Your task to perform on an android device: Open Google Chrome Image 0: 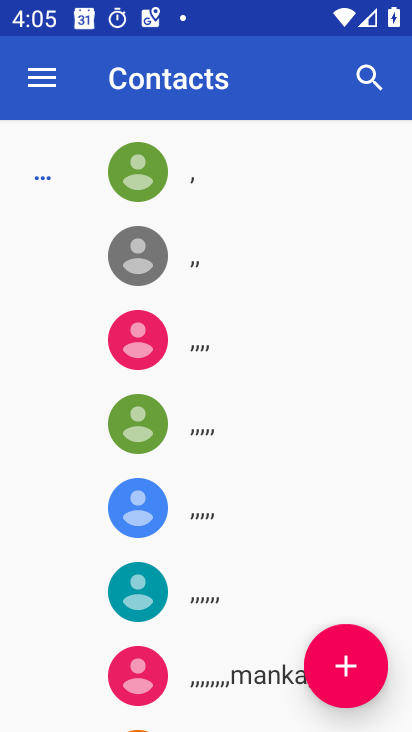
Step 0: press home button
Your task to perform on an android device: Open Google Chrome Image 1: 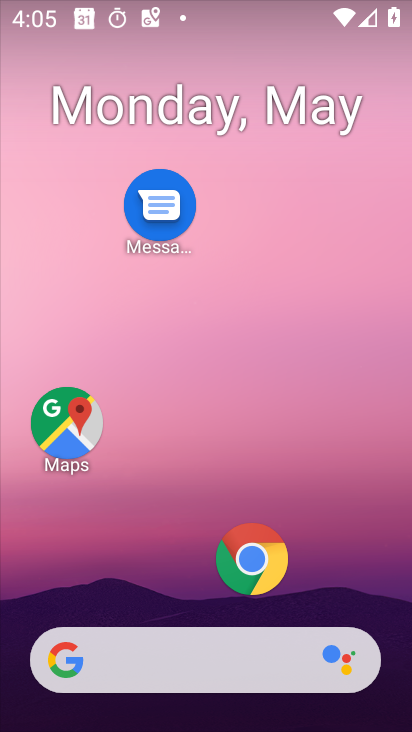
Step 1: click (253, 554)
Your task to perform on an android device: Open Google Chrome Image 2: 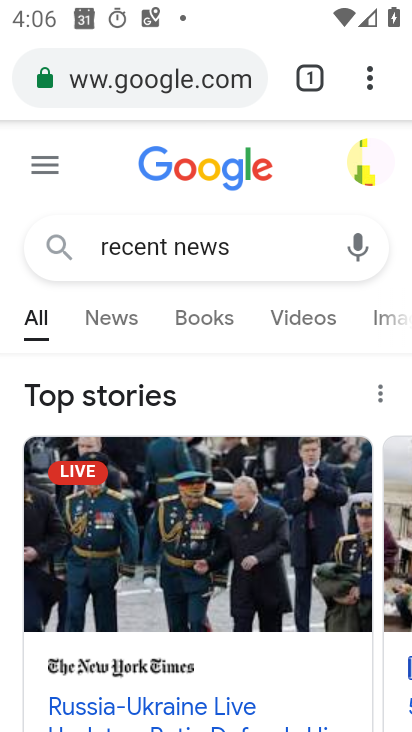
Step 2: press home button
Your task to perform on an android device: Open Google Chrome Image 3: 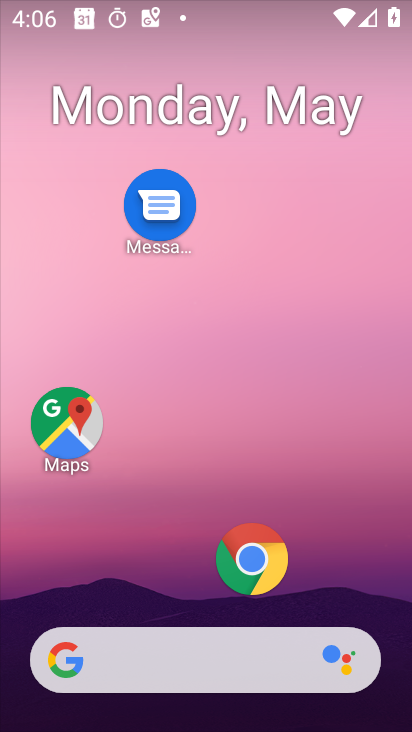
Step 3: click (253, 562)
Your task to perform on an android device: Open Google Chrome Image 4: 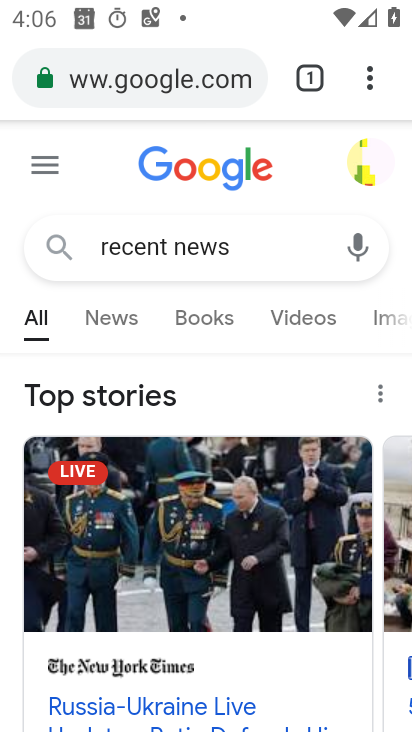
Step 4: task complete